Your task to perform on an android device: Do I have any events tomorrow? Image 0: 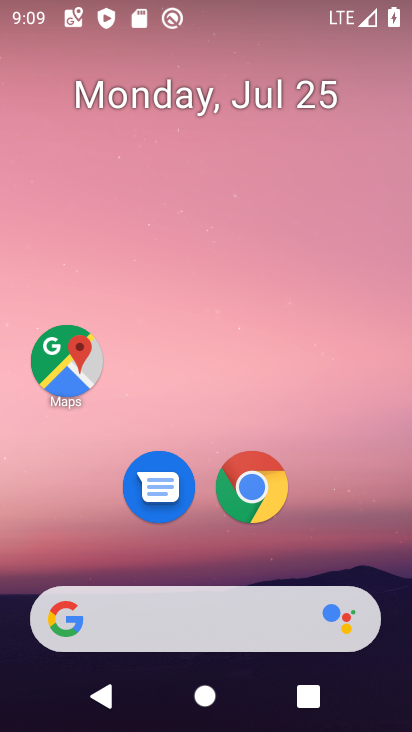
Step 0: drag from (194, 557) to (241, 85)
Your task to perform on an android device: Do I have any events tomorrow? Image 1: 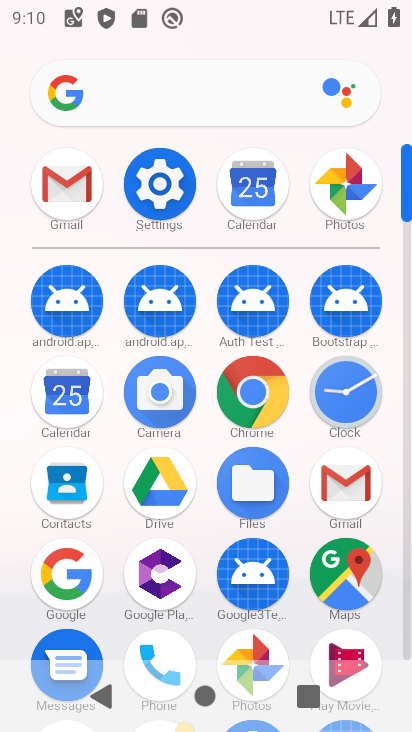
Step 1: click (69, 392)
Your task to perform on an android device: Do I have any events tomorrow? Image 2: 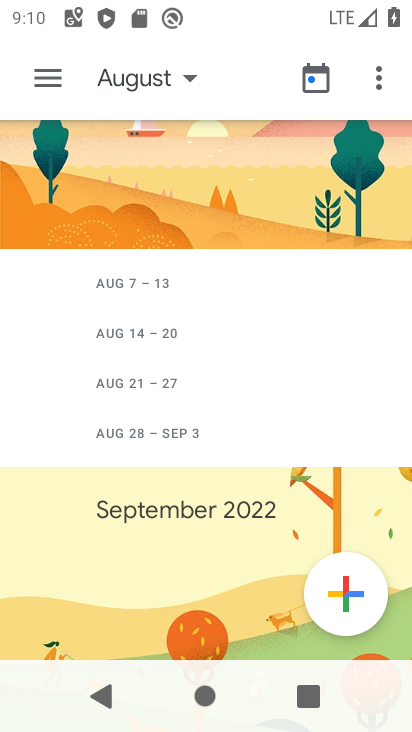
Step 2: drag from (205, 340) to (174, 598)
Your task to perform on an android device: Do I have any events tomorrow? Image 3: 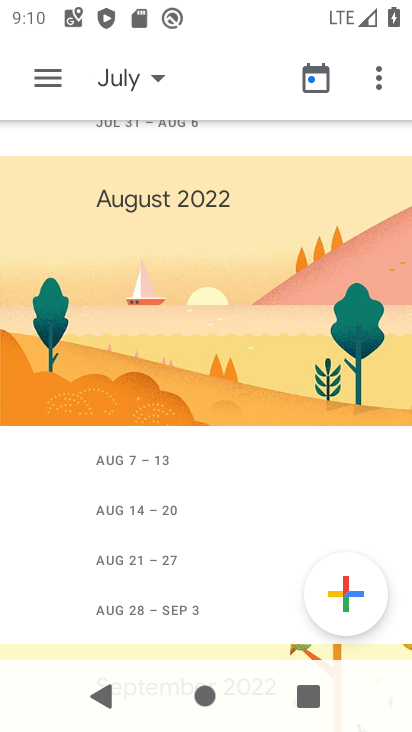
Step 3: click (125, 78)
Your task to perform on an android device: Do I have any events tomorrow? Image 4: 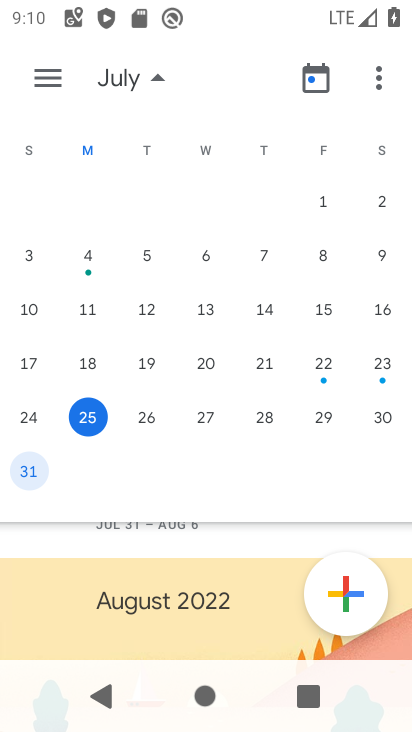
Step 4: click (85, 413)
Your task to perform on an android device: Do I have any events tomorrow? Image 5: 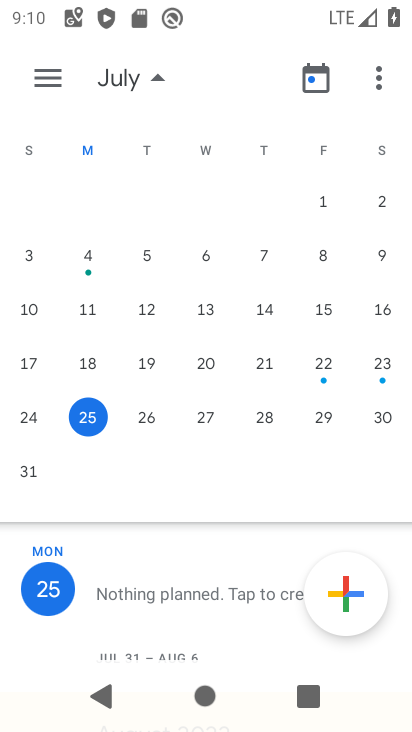
Step 5: click (134, 419)
Your task to perform on an android device: Do I have any events tomorrow? Image 6: 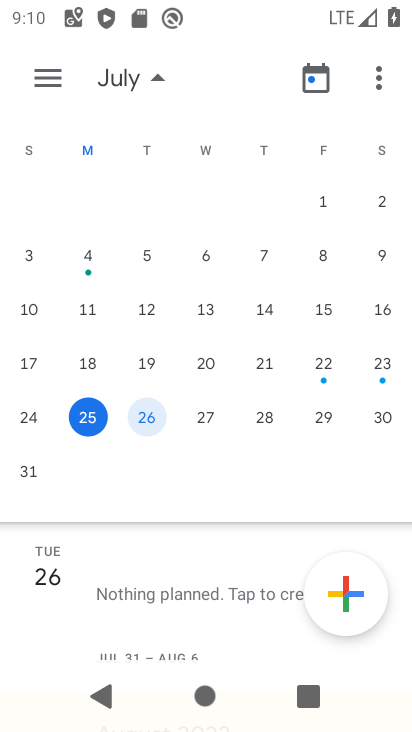
Step 6: task complete